Your task to perform on an android device: turn off improve location accuracy Image 0: 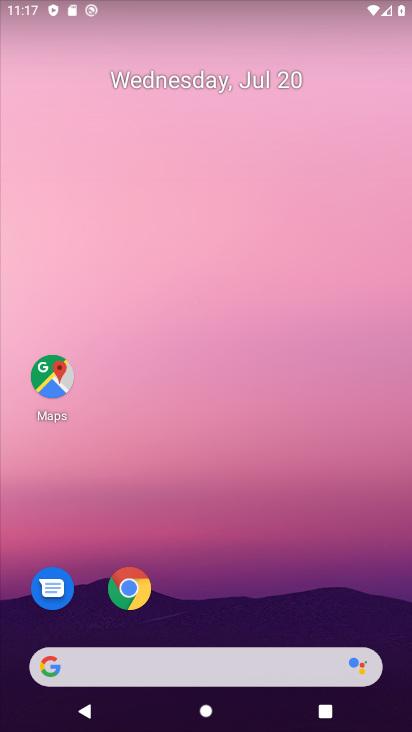
Step 0: press home button
Your task to perform on an android device: turn off improve location accuracy Image 1: 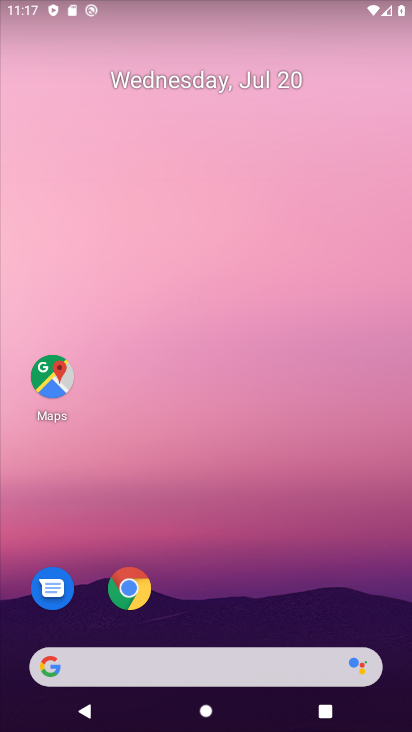
Step 1: drag from (258, 601) to (342, 0)
Your task to perform on an android device: turn off improve location accuracy Image 2: 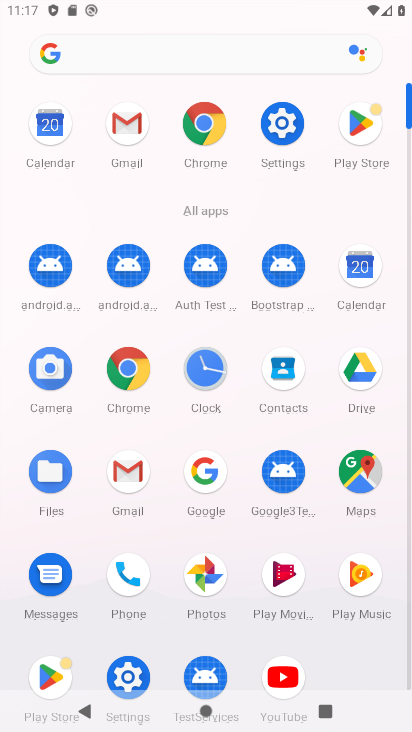
Step 2: click (280, 137)
Your task to perform on an android device: turn off improve location accuracy Image 3: 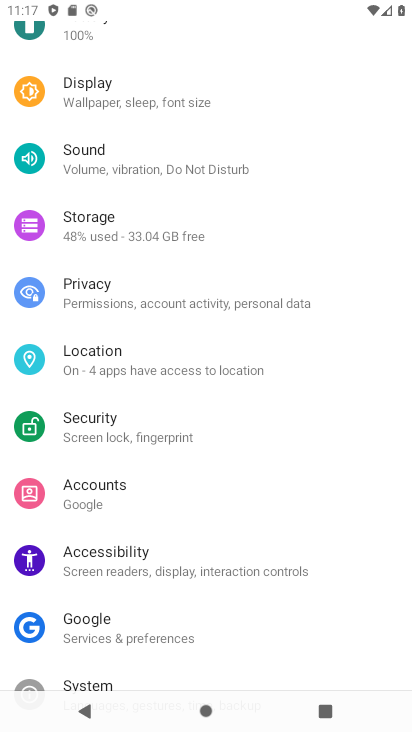
Step 3: click (163, 362)
Your task to perform on an android device: turn off improve location accuracy Image 4: 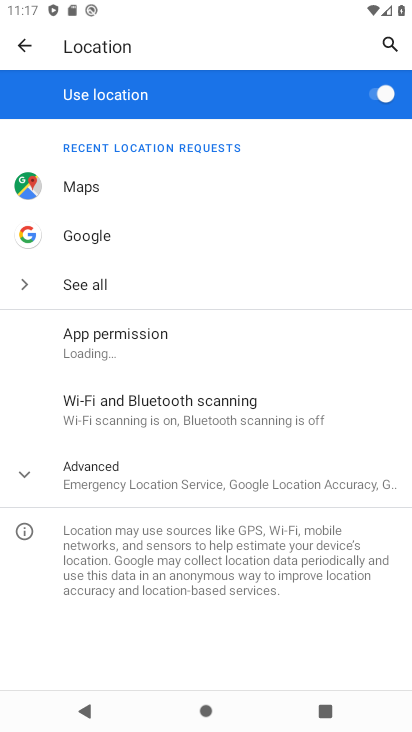
Step 4: click (25, 473)
Your task to perform on an android device: turn off improve location accuracy Image 5: 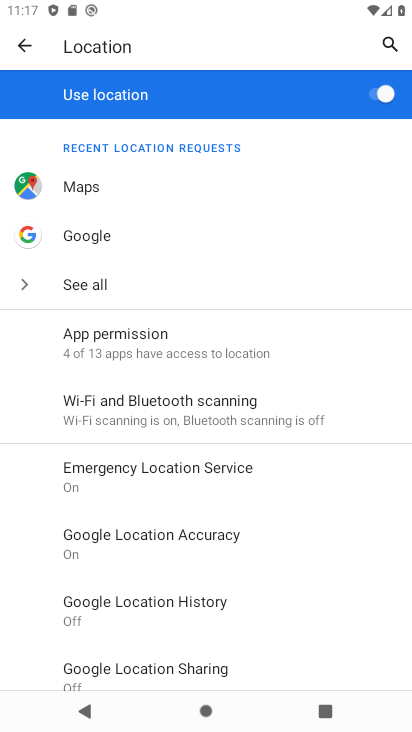
Step 5: click (197, 537)
Your task to perform on an android device: turn off improve location accuracy Image 6: 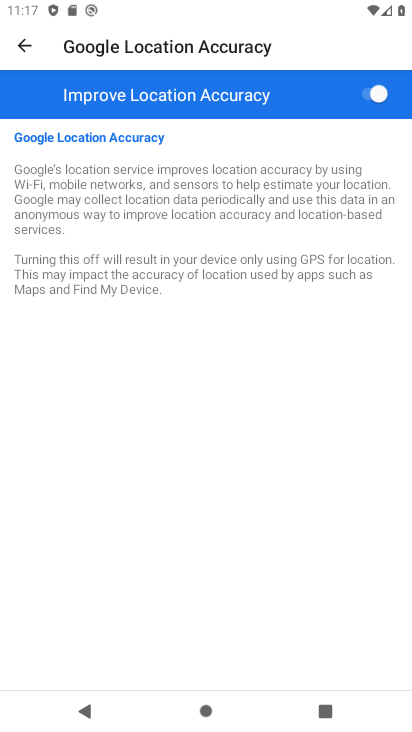
Step 6: click (375, 98)
Your task to perform on an android device: turn off improve location accuracy Image 7: 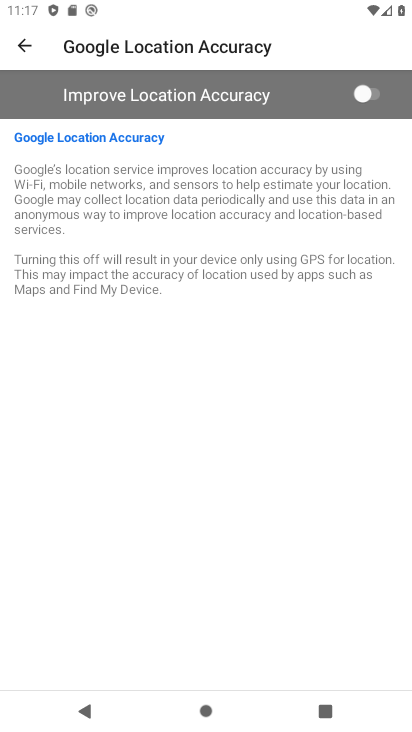
Step 7: task complete